Your task to perform on an android device: turn off smart reply in the gmail app Image 0: 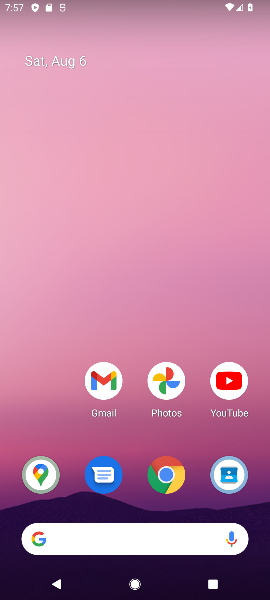
Step 0: click (105, 386)
Your task to perform on an android device: turn off smart reply in the gmail app Image 1: 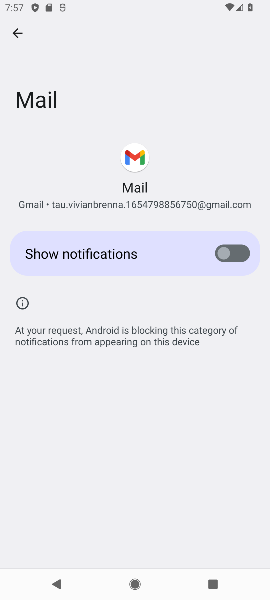
Step 1: press back button
Your task to perform on an android device: turn off smart reply in the gmail app Image 2: 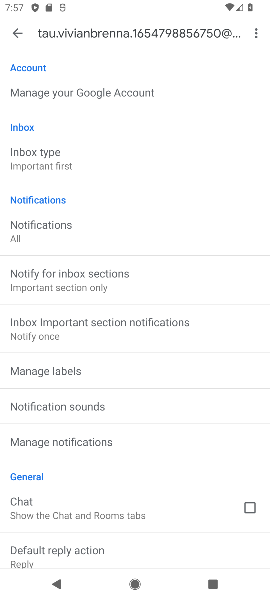
Step 2: drag from (144, 460) to (144, 241)
Your task to perform on an android device: turn off smart reply in the gmail app Image 3: 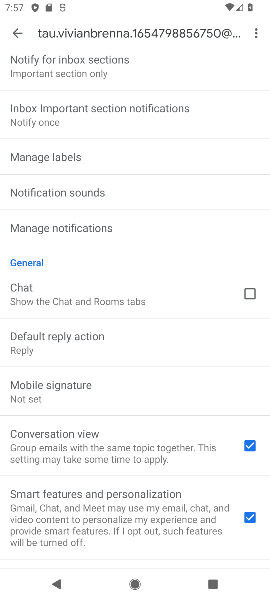
Step 3: drag from (143, 448) to (137, 252)
Your task to perform on an android device: turn off smart reply in the gmail app Image 4: 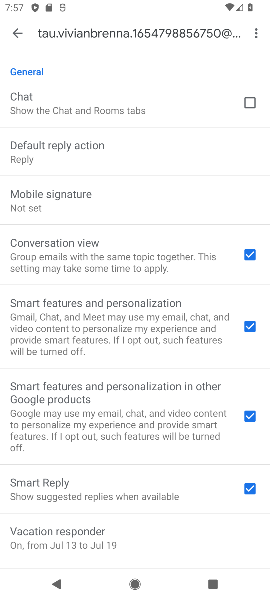
Step 4: click (247, 485)
Your task to perform on an android device: turn off smart reply in the gmail app Image 5: 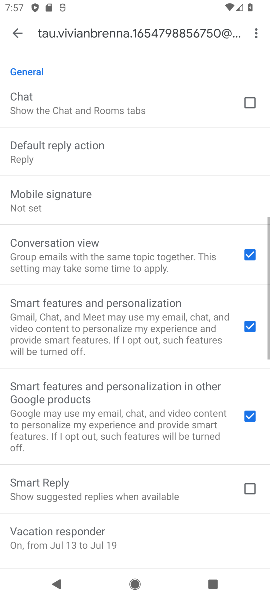
Step 5: task complete